Your task to perform on an android device: Open the stopwatch Image 0: 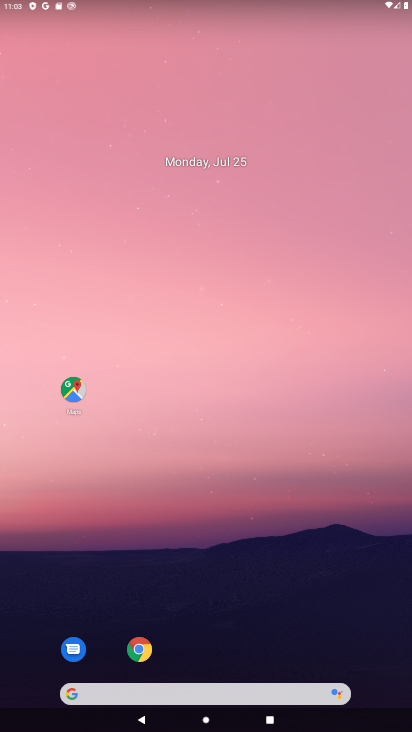
Step 0: drag from (132, 671) to (135, 337)
Your task to perform on an android device: Open the stopwatch Image 1: 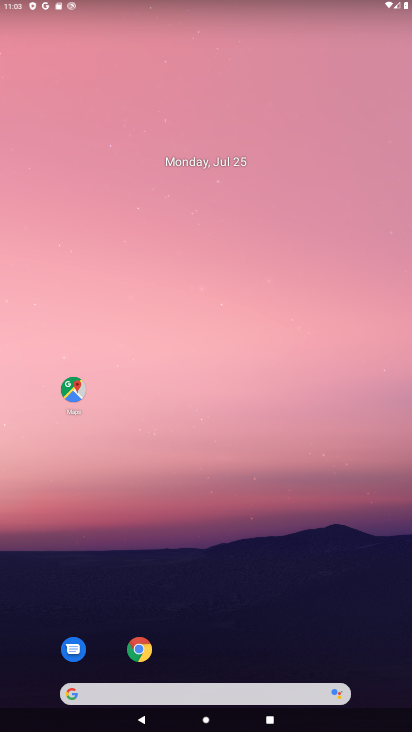
Step 1: drag from (252, 691) to (238, 352)
Your task to perform on an android device: Open the stopwatch Image 2: 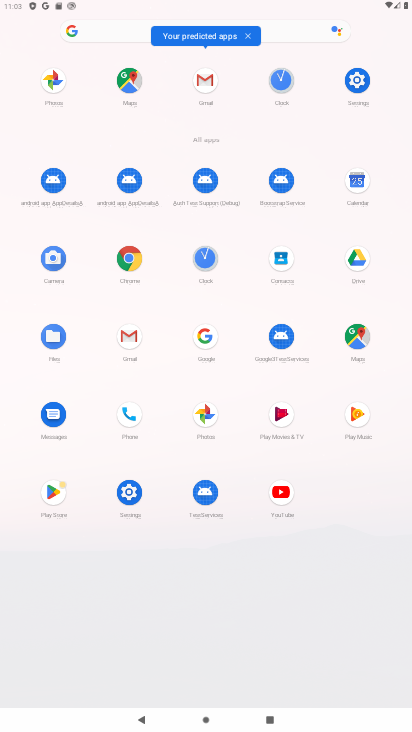
Step 2: click (208, 259)
Your task to perform on an android device: Open the stopwatch Image 3: 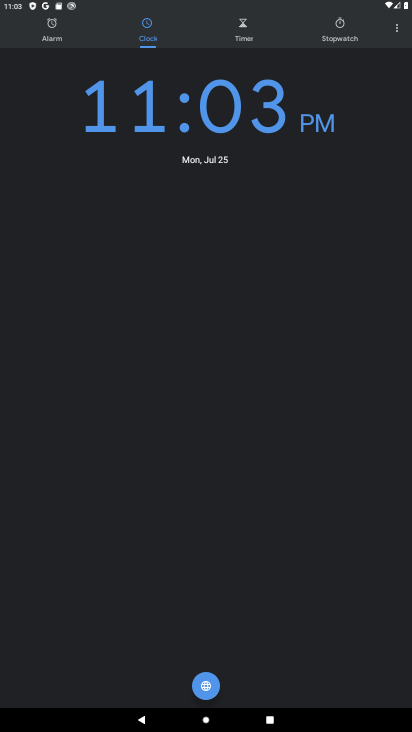
Step 3: click (339, 33)
Your task to perform on an android device: Open the stopwatch Image 4: 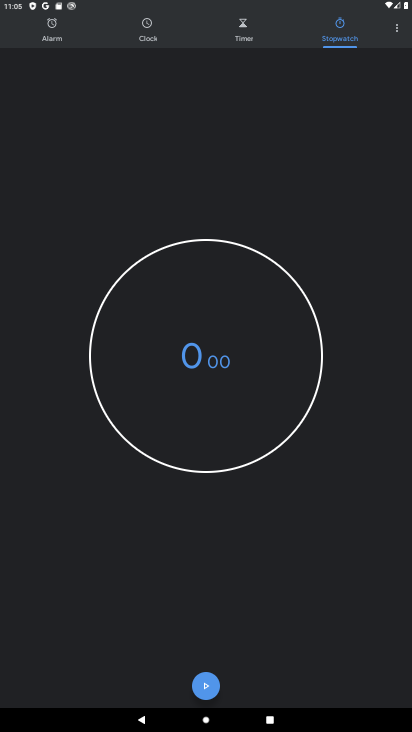
Step 4: task complete